Your task to perform on an android device: Open network settings Image 0: 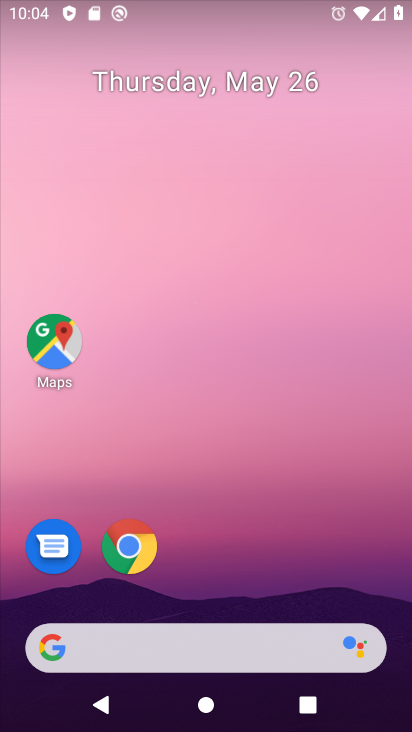
Step 0: drag from (261, 555) to (255, 226)
Your task to perform on an android device: Open network settings Image 1: 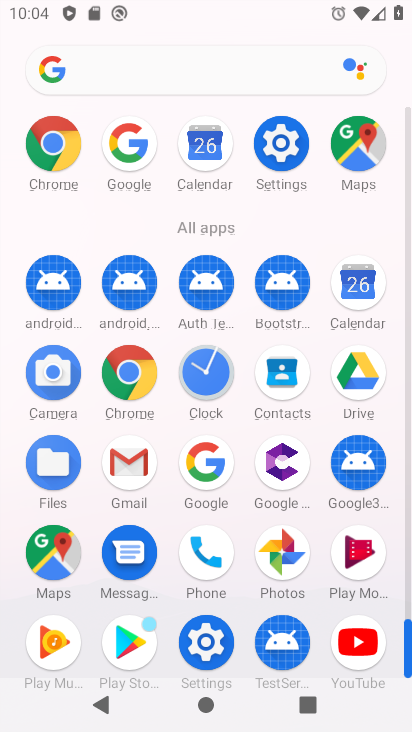
Step 1: click (282, 142)
Your task to perform on an android device: Open network settings Image 2: 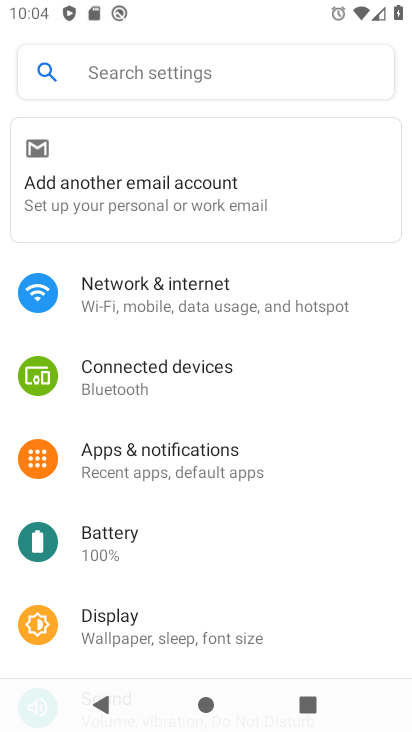
Step 2: click (210, 305)
Your task to perform on an android device: Open network settings Image 3: 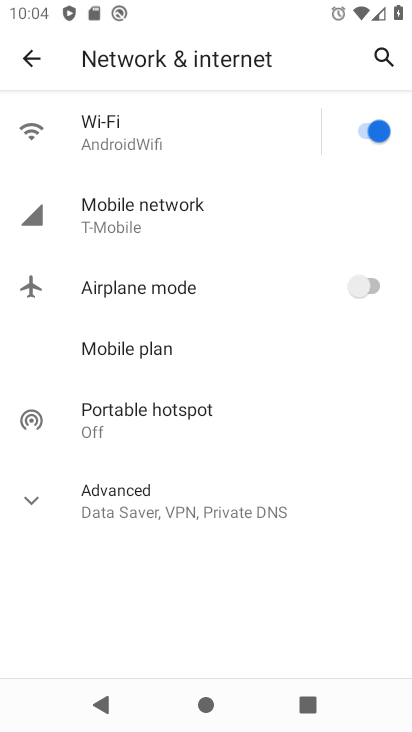
Step 3: click (172, 223)
Your task to perform on an android device: Open network settings Image 4: 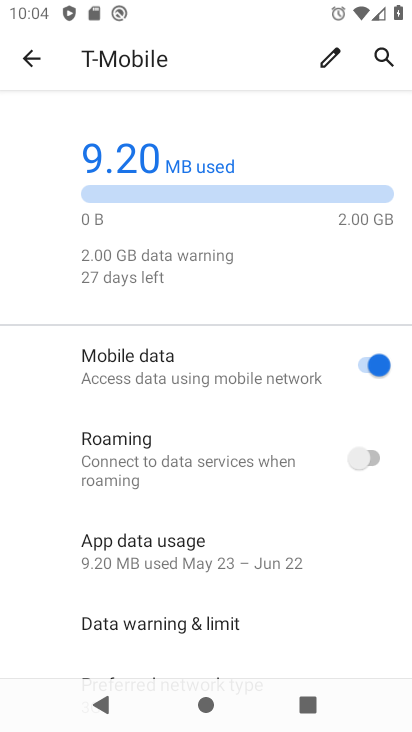
Step 4: task complete